Your task to perform on an android device: What is the recent news? Image 0: 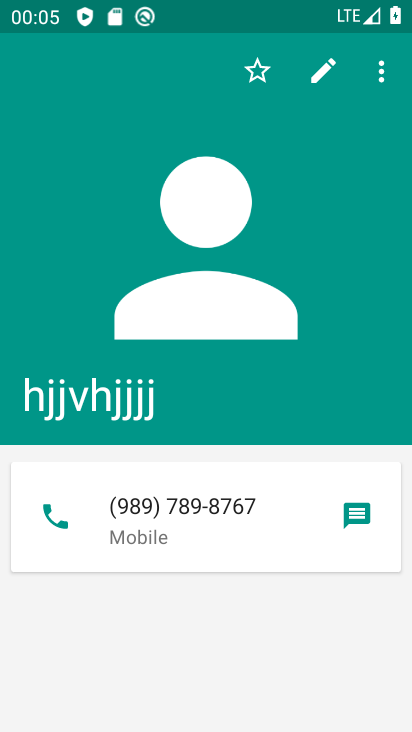
Step 0: press home button
Your task to perform on an android device: What is the recent news? Image 1: 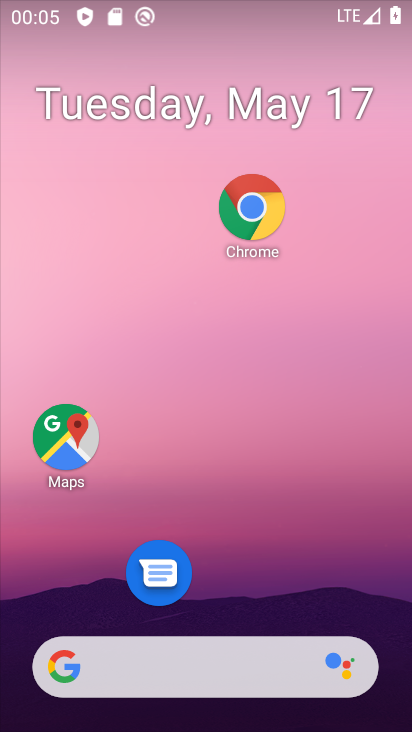
Step 1: drag from (198, 616) to (184, 133)
Your task to perform on an android device: What is the recent news? Image 2: 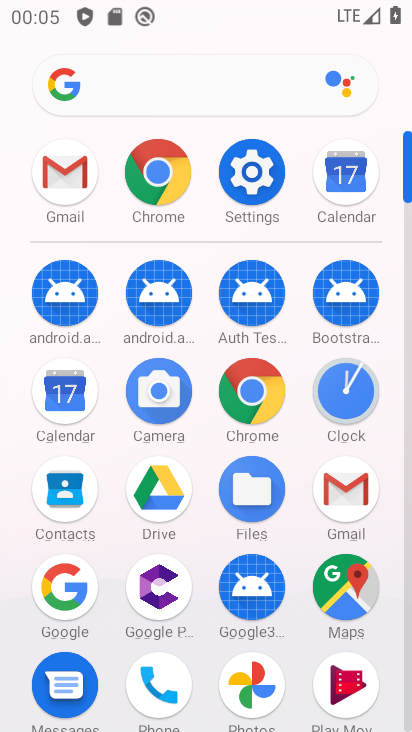
Step 2: click (245, 397)
Your task to perform on an android device: What is the recent news? Image 3: 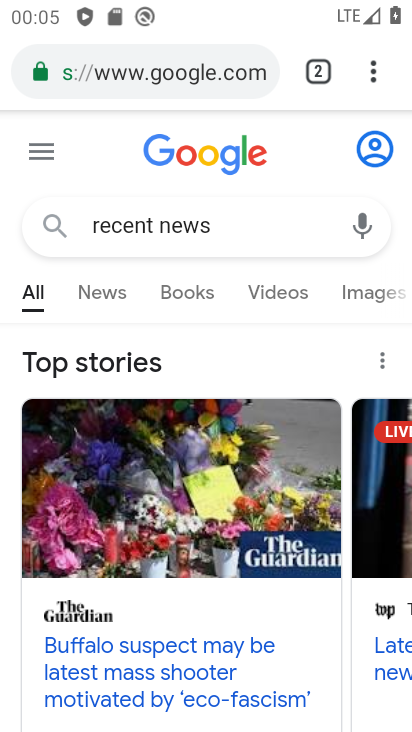
Step 3: click (199, 77)
Your task to perform on an android device: What is the recent news? Image 4: 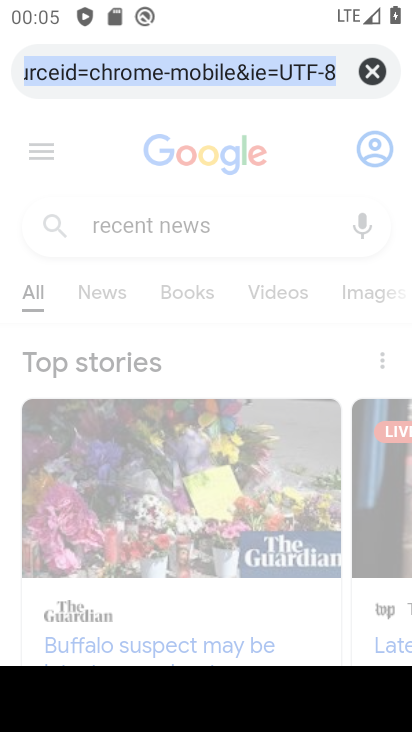
Step 4: click (375, 65)
Your task to perform on an android device: What is the recent news? Image 5: 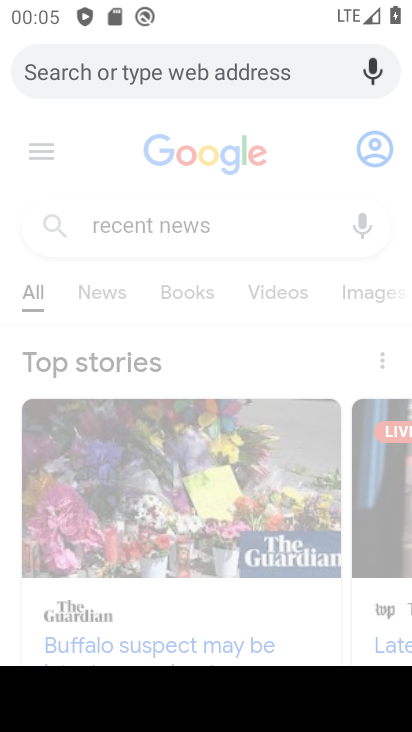
Step 5: type "recent news"
Your task to perform on an android device: What is the recent news? Image 6: 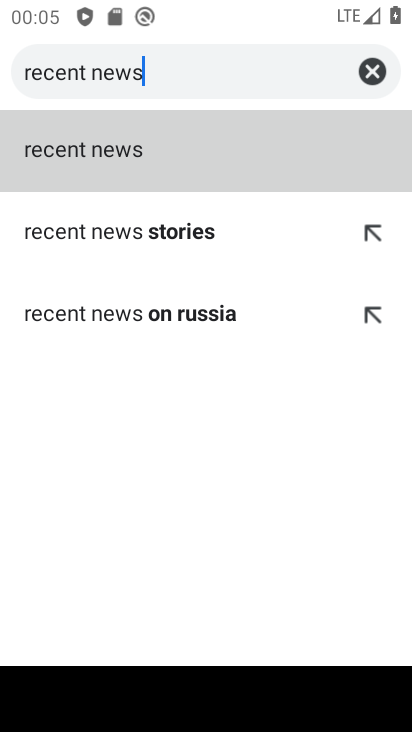
Step 6: click (117, 166)
Your task to perform on an android device: What is the recent news? Image 7: 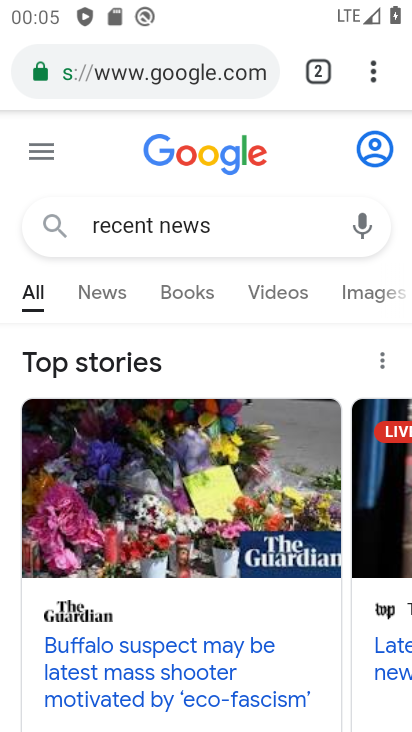
Step 7: task complete